Your task to perform on an android device: open wifi settings Image 0: 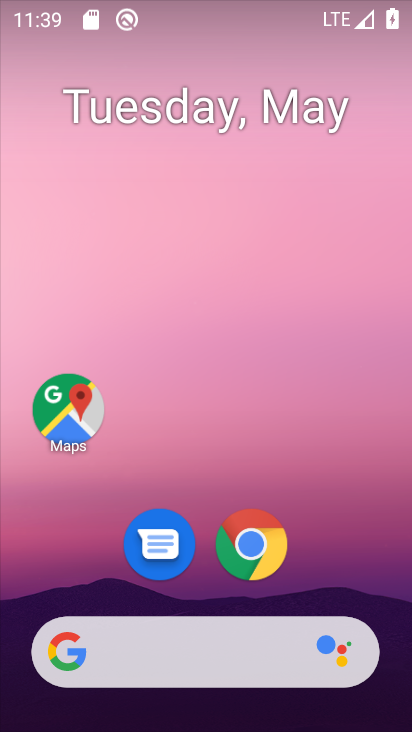
Step 0: drag from (214, 503) to (231, 154)
Your task to perform on an android device: open wifi settings Image 1: 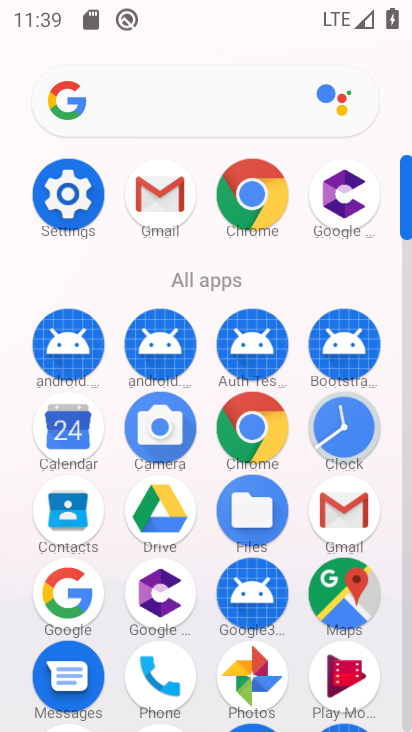
Step 1: click (67, 212)
Your task to perform on an android device: open wifi settings Image 2: 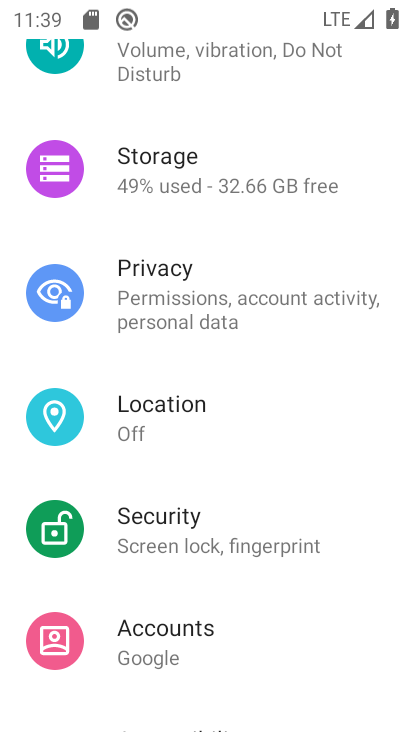
Step 2: drag from (248, 248) to (301, 713)
Your task to perform on an android device: open wifi settings Image 3: 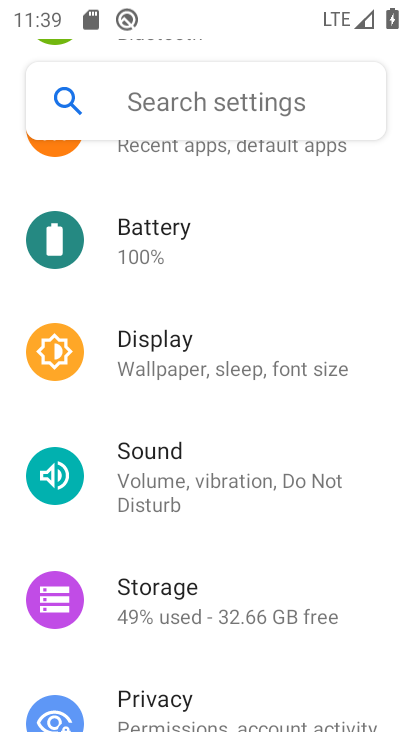
Step 3: drag from (259, 315) to (302, 647)
Your task to perform on an android device: open wifi settings Image 4: 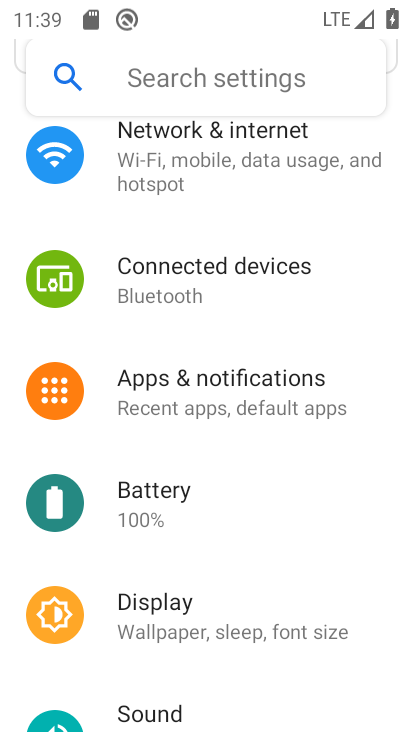
Step 4: click (207, 183)
Your task to perform on an android device: open wifi settings Image 5: 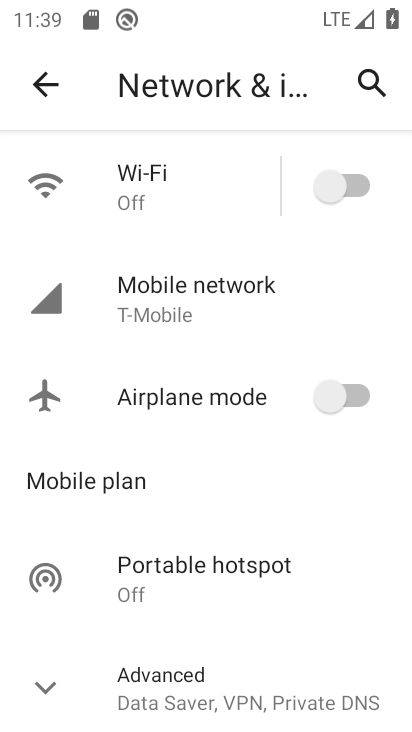
Step 5: click (165, 187)
Your task to perform on an android device: open wifi settings Image 6: 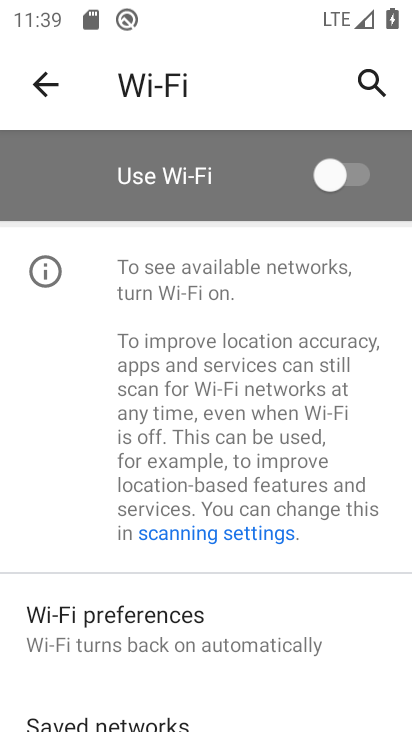
Step 6: task complete